Your task to perform on an android device: Open Chrome and go to the settings page Image 0: 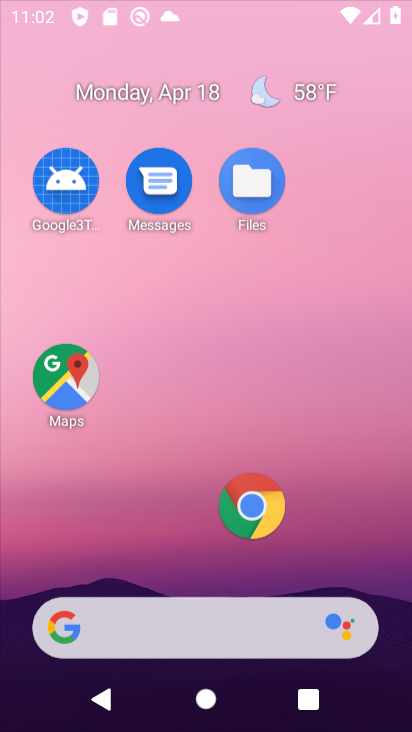
Step 0: drag from (187, 574) to (123, 18)
Your task to perform on an android device: Open Chrome and go to the settings page Image 1: 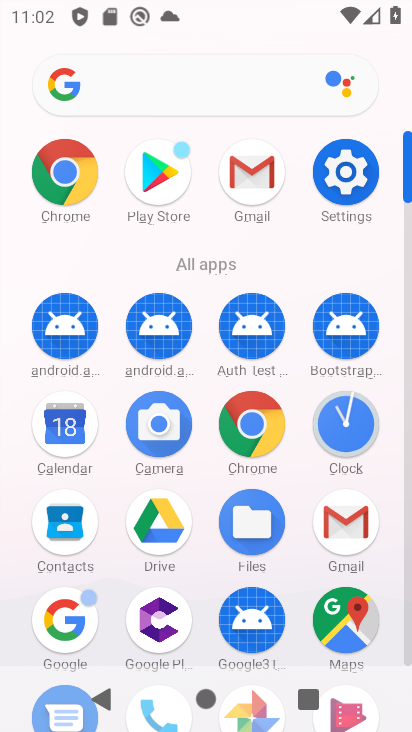
Step 1: click (242, 443)
Your task to perform on an android device: Open Chrome and go to the settings page Image 2: 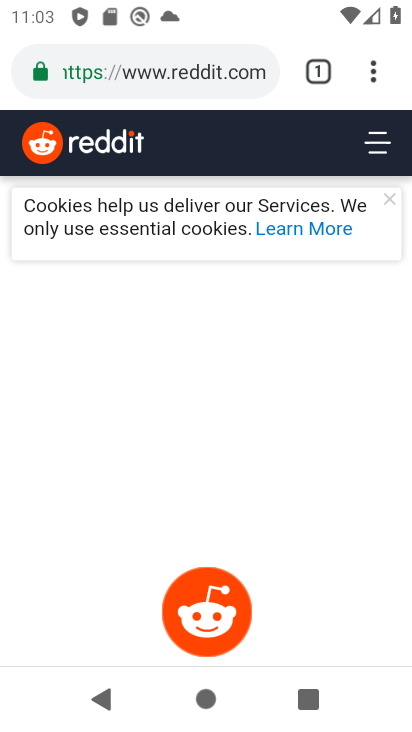
Step 2: click (370, 77)
Your task to perform on an android device: Open Chrome and go to the settings page Image 3: 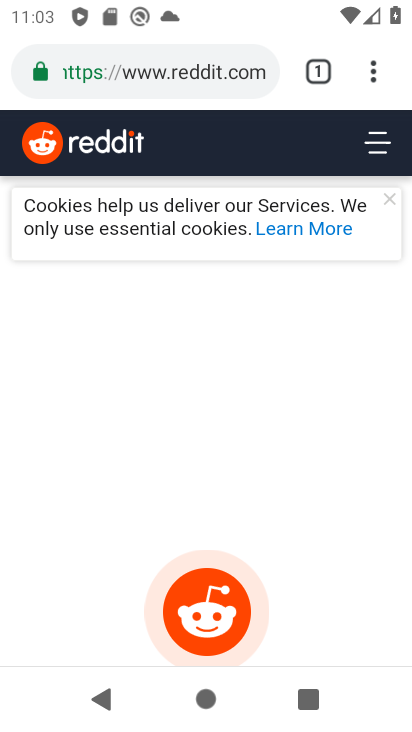
Step 3: task complete